Your task to perform on an android device: Open the Play Movies app and select the watchlist tab. Image 0: 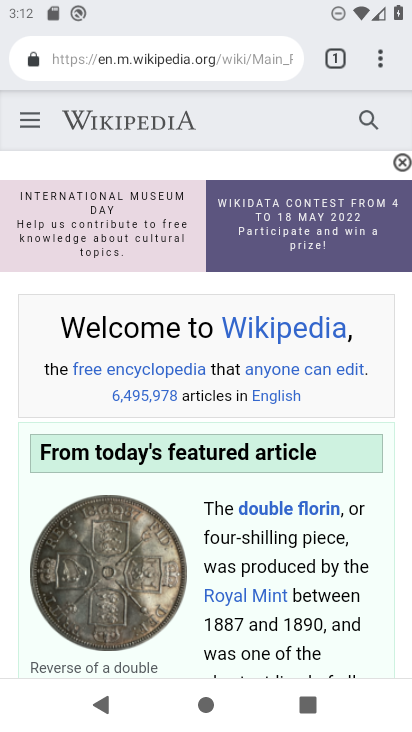
Step 0: press home button
Your task to perform on an android device: Open the Play Movies app and select the watchlist tab. Image 1: 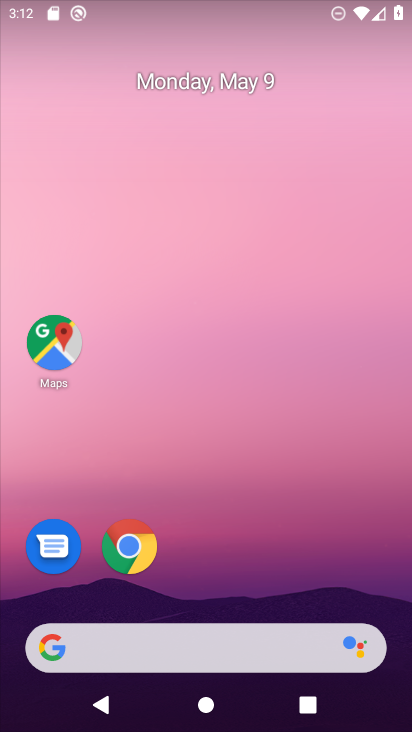
Step 1: drag from (197, 595) to (211, 78)
Your task to perform on an android device: Open the Play Movies app and select the watchlist tab. Image 2: 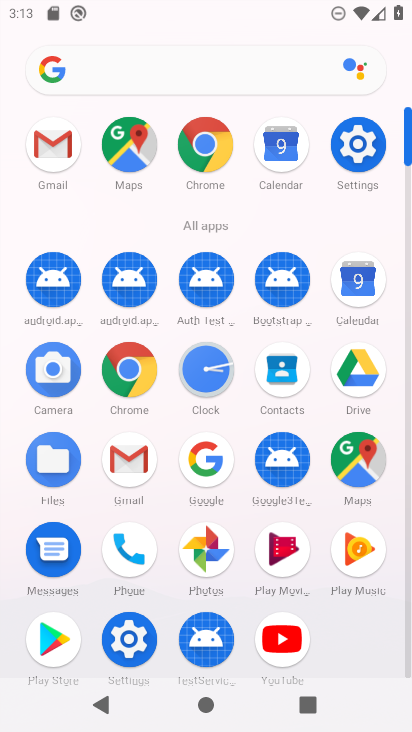
Step 2: click (288, 558)
Your task to perform on an android device: Open the Play Movies app and select the watchlist tab. Image 3: 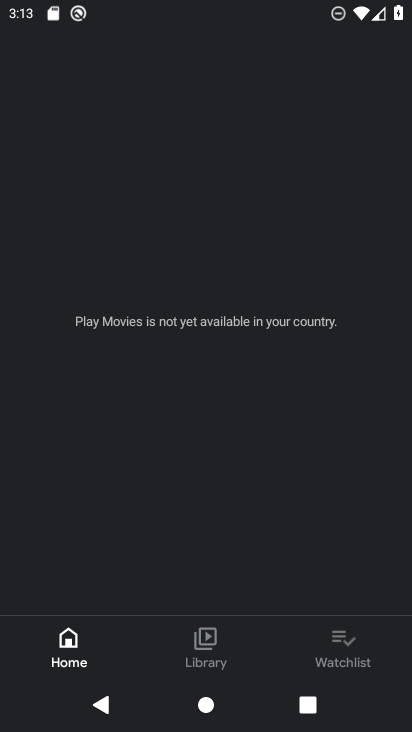
Step 3: click (315, 655)
Your task to perform on an android device: Open the Play Movies app and select the watchlist tab. Image 4: 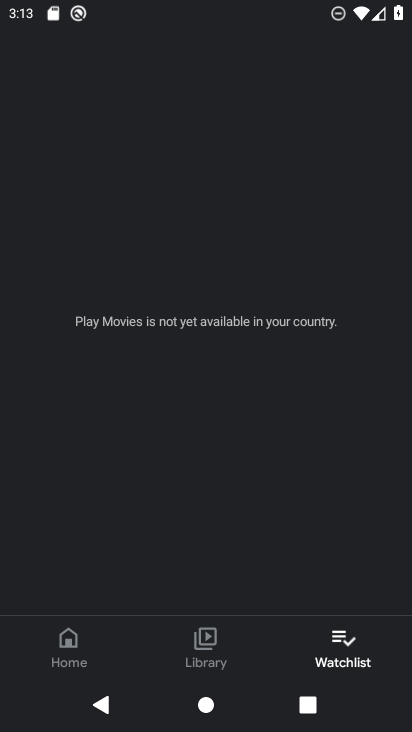
Step 4: task complete